Your task to perform on an android device: turn off location history Image 0: 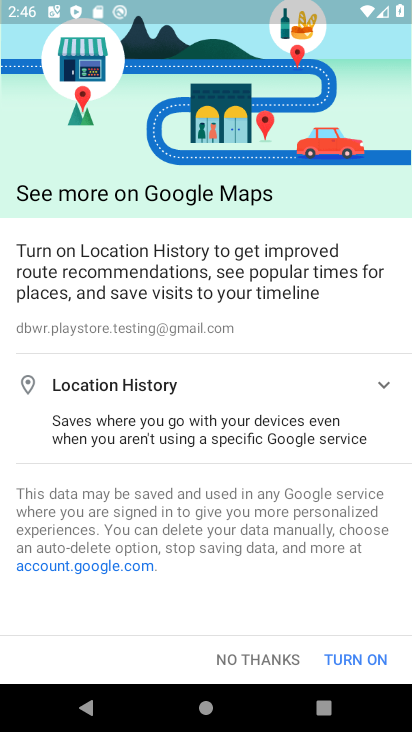
Step 0: press home button
Your task to perform on an android device: turn off location history Image 1: 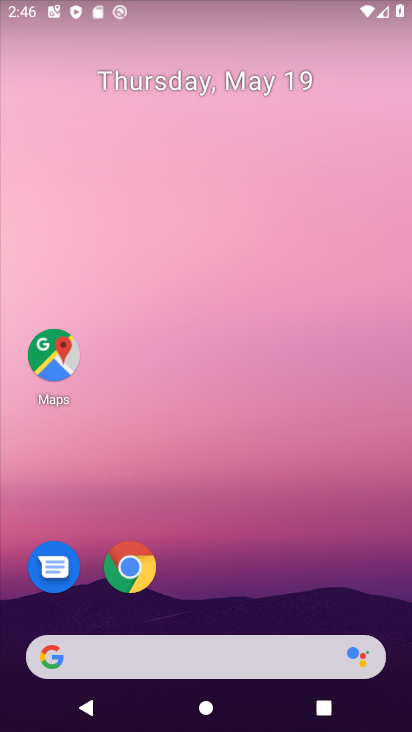
Step 1: drag from (236, 711) to (243, 43)
Your task to perform on an android device: turn off location history Image 2: 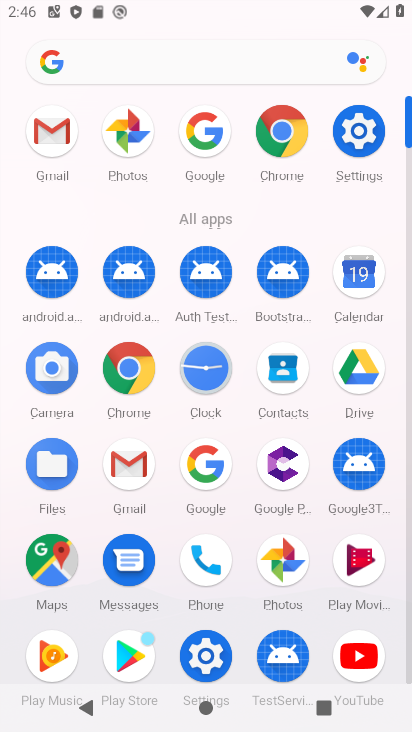
Step 2: click (364, 132)
Your task to perform on an android device: turn off location history Image 3: 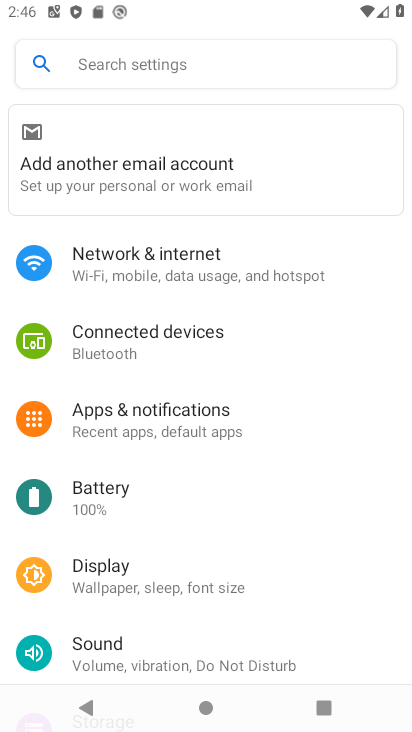
Step 3: drag from (193, 627) to (181, 233)
Your task to perform on an android device: turn off location history Image 4: 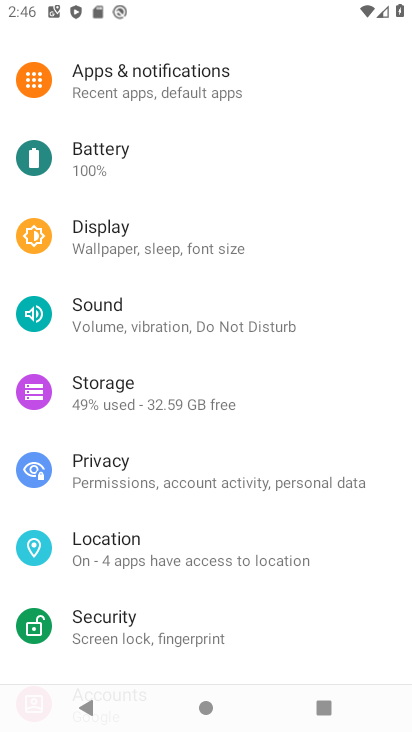
Step 4: click (121, 551)
Your task to perform on an android device: turn off location history Image 5: 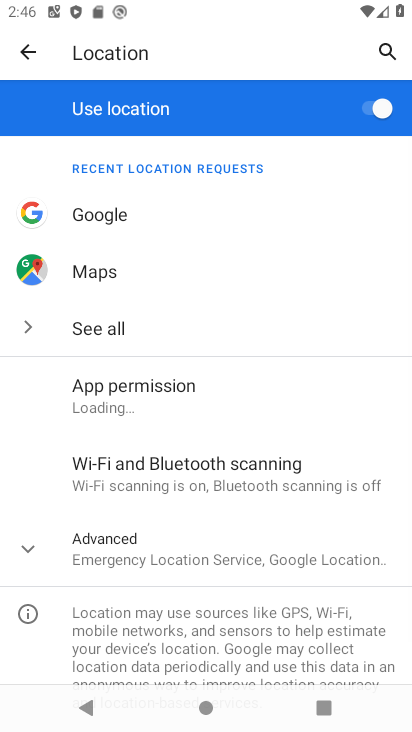
Step 5: click (127, 547)
Your task to perform on an android device: turn off location history Image 6: 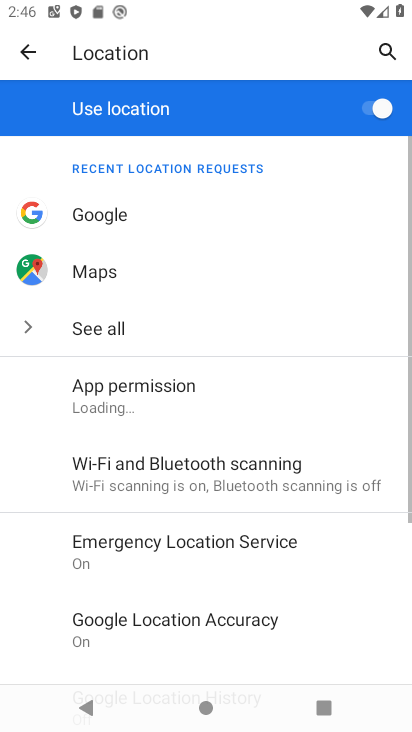
Step 6: drag from (188, 583) to (194, 258)
Your task to perform on an android device: turn off location history Image 7: 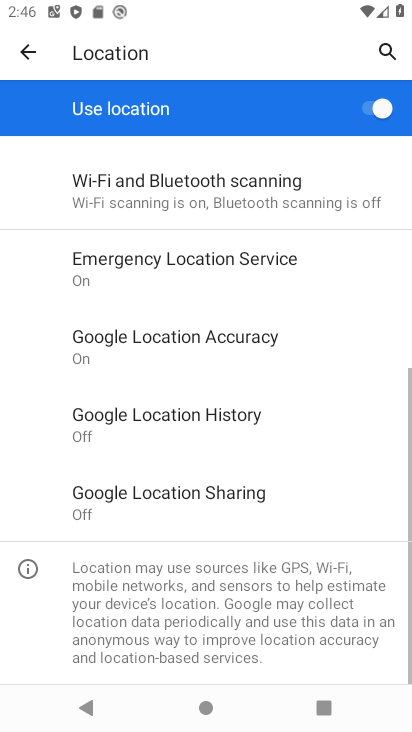
Step 7: click (197, 415)
Your task to perform on an android device: turn off location history Image 8: 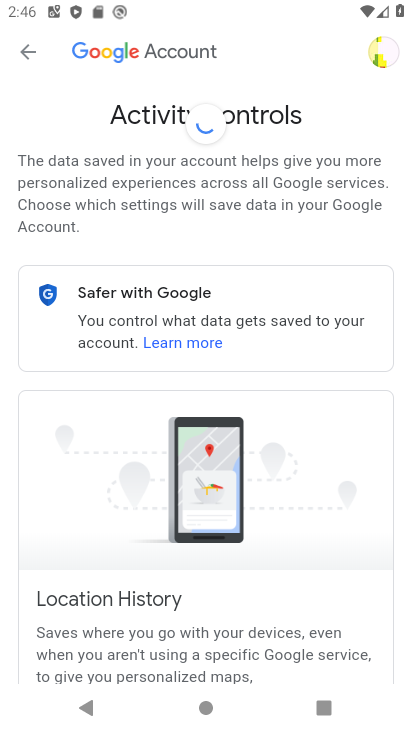
Step 8: drag from (259, 621) to (267, 537)
Your task to perform on an android device: turn off location history Image 9: 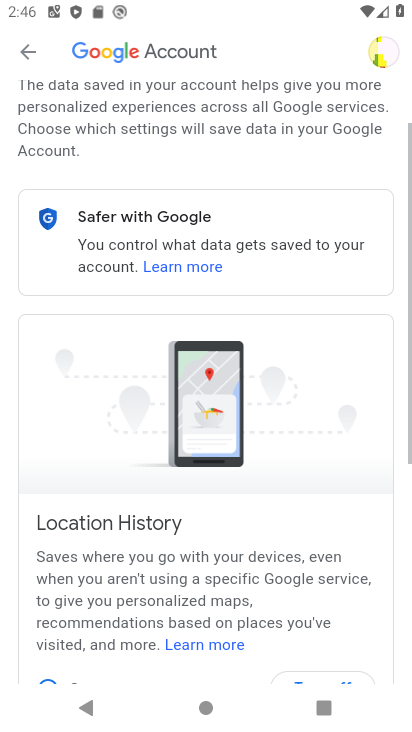
Step 9: click (258, 179)
Your task to perform on an android device: turn off location history Image 10: 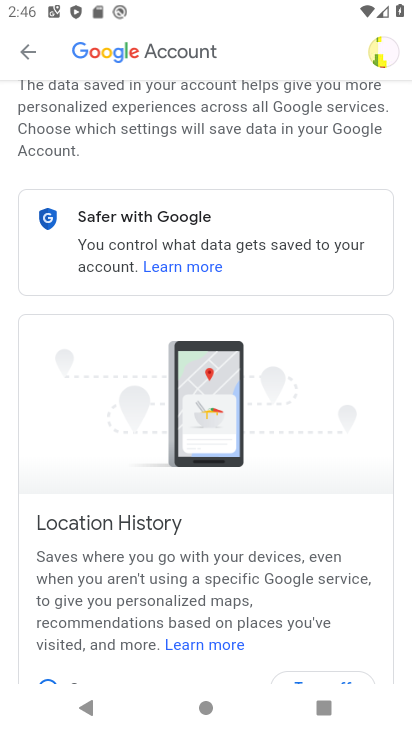
Step 10: task complete